Your task to perform on an android device: toggle wifi Image 0: 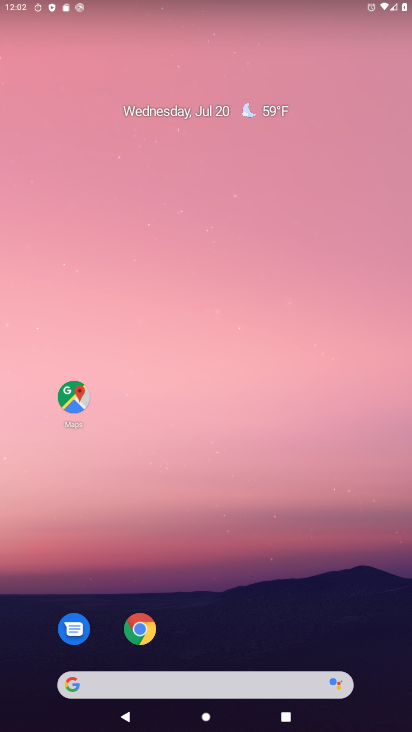
Step 0: drag from (251, 450) to (22, 645)
Your task to perform on an android device: toggle wifi Image 1: 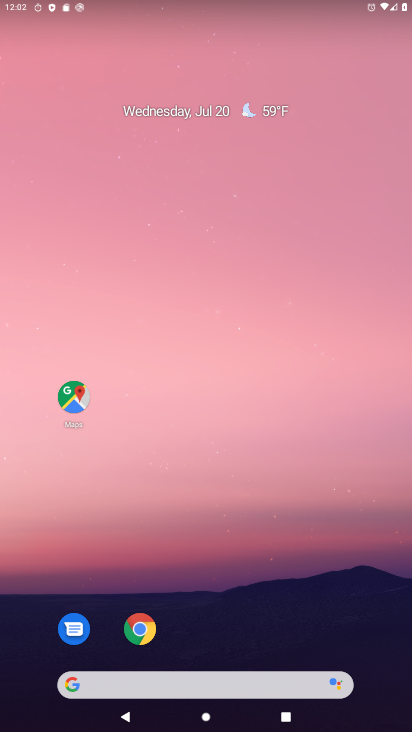
Step 1: drag from (234, 485) to (267, 119)
Your task to perform on an android device: toggle wifi Image 2: 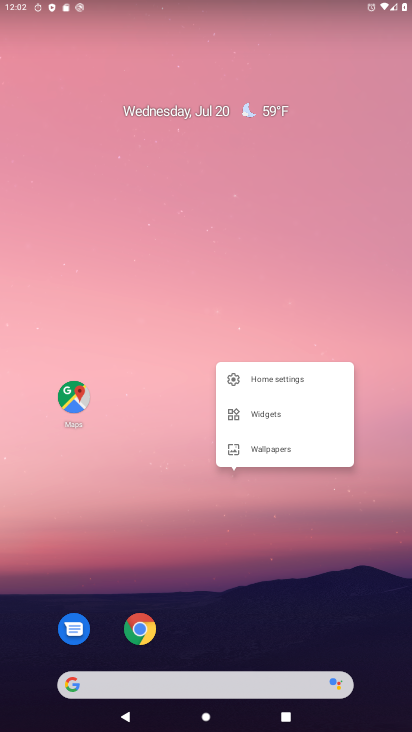
Step 2: click (277, 587)
Your task to perform on an android device: toggle wifi Image 3: 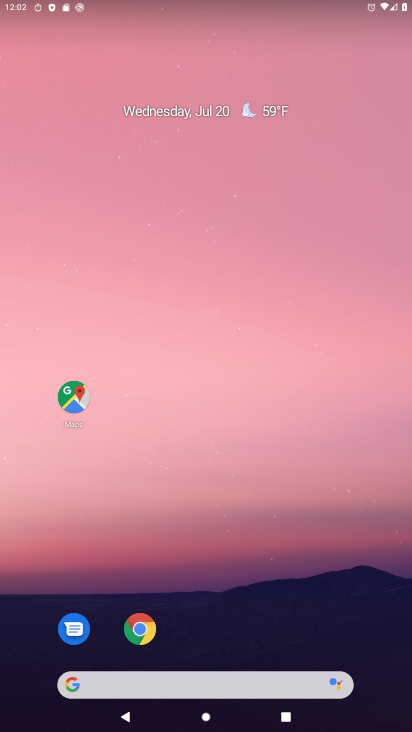
Step 3: drag from (280, 633) to (247, 19)
Your task to perform on an android device: toggle wifi Image 4: 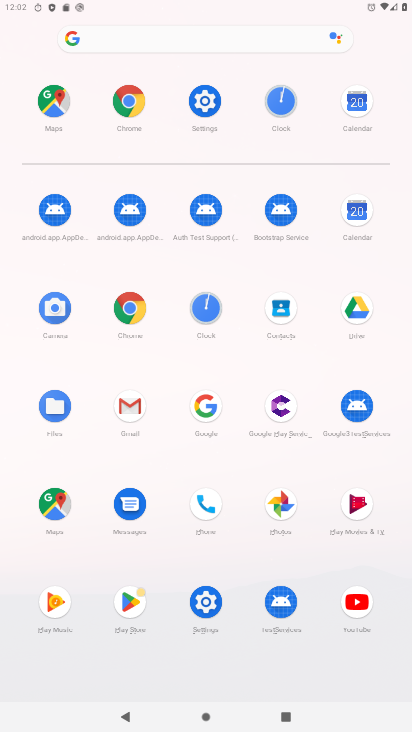
Step 4: click (206, 114)
Your task to perform on an android device: toggle wifi Image 5: 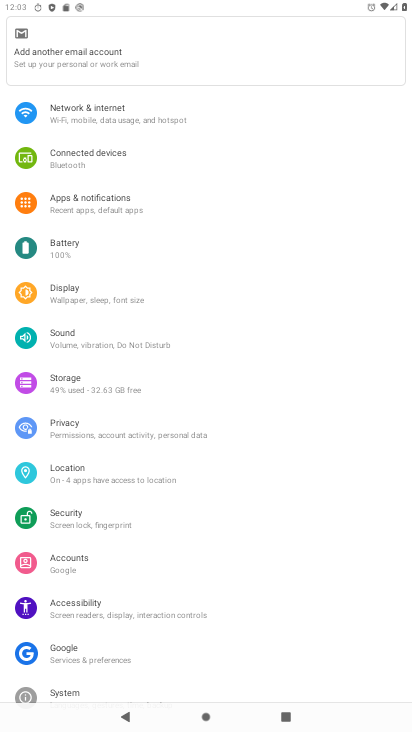
Step 5: click (108, 116)
Your task to perform on an android device: toggle wifi Image 6: 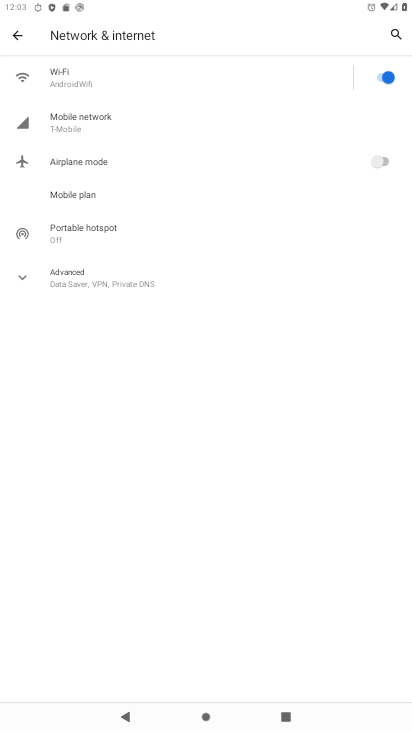
Step 6: click (383, 79)
Your task to perform on an android device: toggle wifi Image 7: 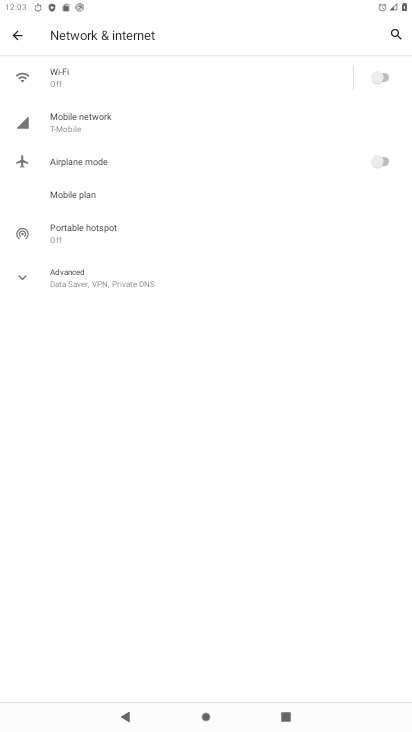
Step 7: task complete